Your task to perform on an android device: Show me popular videos on Youtube Image 0: 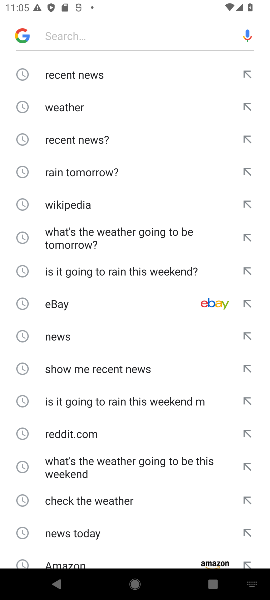
Step 0: press home button
Your task to perform on an android device: Show me popular videos on Youtube Image 1: 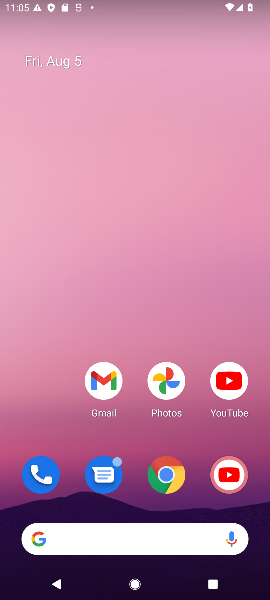
Step 1: click (225, 471)
Your task to perform on an android device: Show me popular videos on Youtube Image 2: 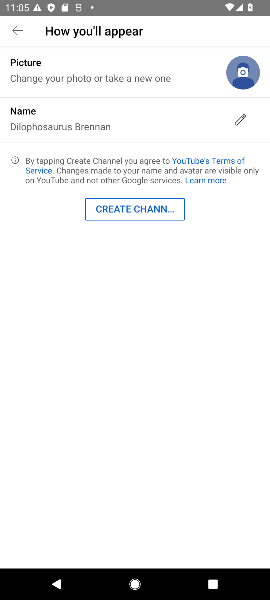
Step 2: click (14, 26)
Your task to perform on an android device: Show me popular videos on Youtube Image 3: 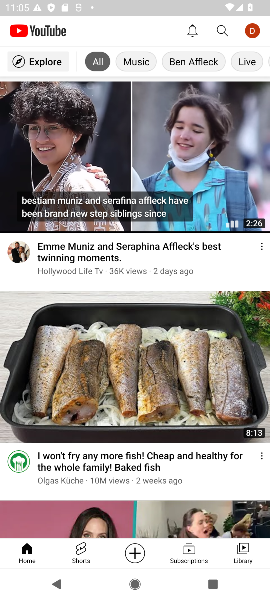
Step 3: click (28, 58)
Your task to perform on an android device: Show me popular videos on Youtube Image 4: 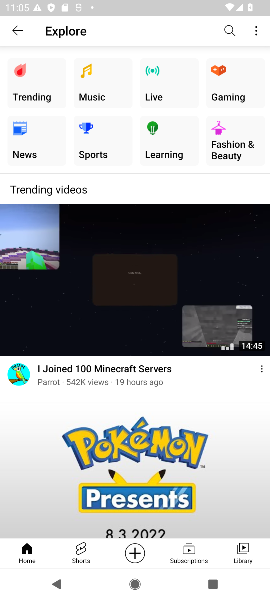
Step 4: click (40, 90)
Your task to perform on an android device: Show me popular videos on Youtube Image 5: 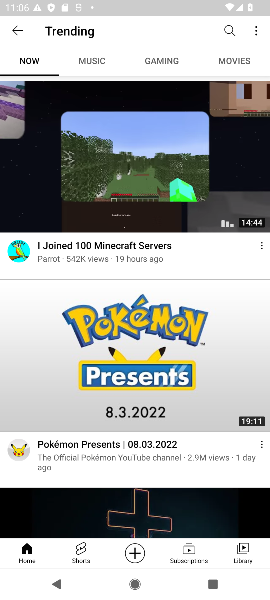
Step 5: task complete